Your task to perform on an android device: turn on location history Image 0: 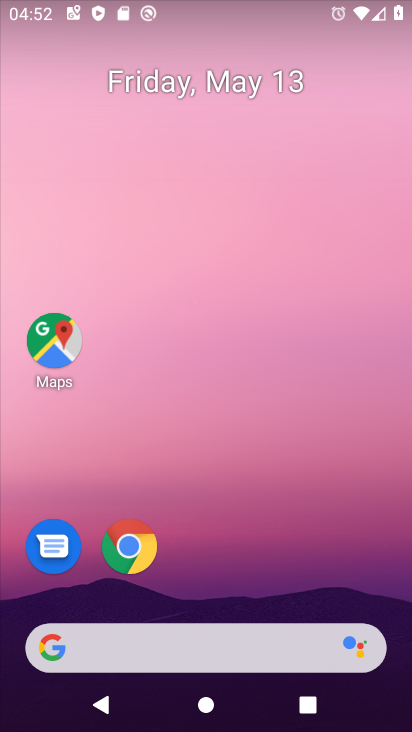
Step 0: drag from (193, 573) to (291, 8)
Your task to perform on an android device: turn on location history Image 1: 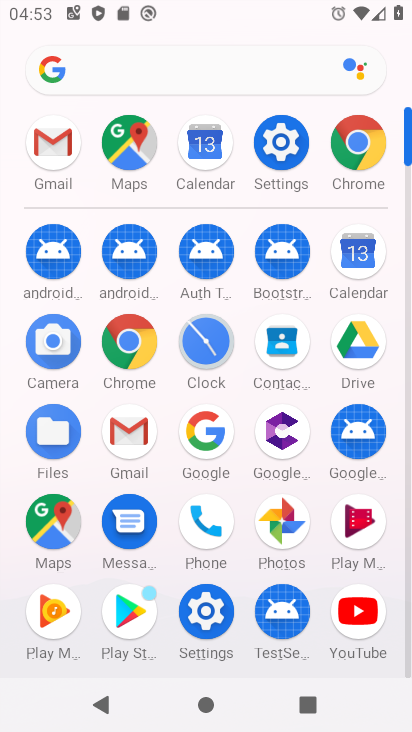
Step 1: click (213, 623)
Your task to perform on an android device: turn on location history Image 2: 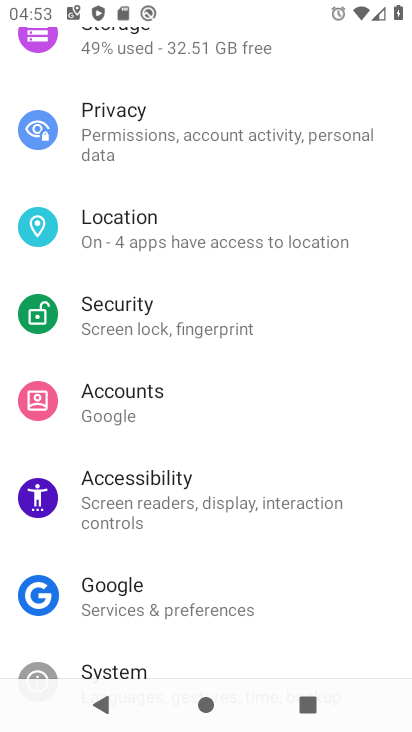
Step 2: click (191, 243)
Your task to perform on an android device: turn on location history Image 3: 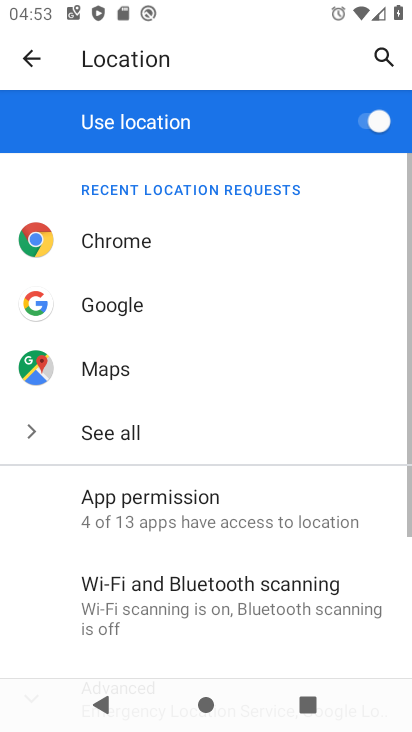
Step 3: drag from (182, 572) to (201, 255)
Your task to perform on an android device: turn on location history Image 4: 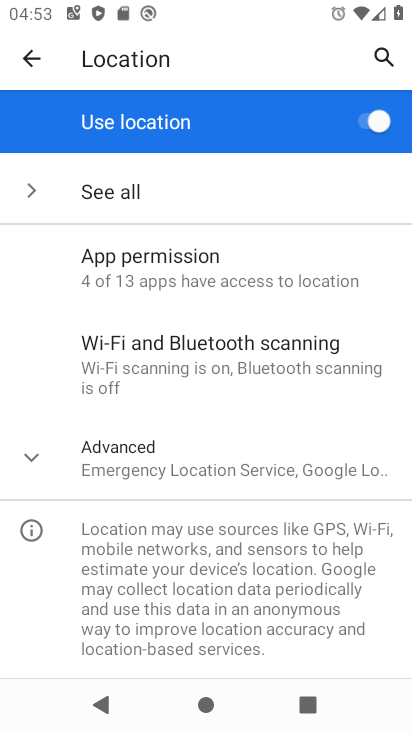
Step 4: click (162, 461)
Your task to perform on an android device: turn on location history Image 5: 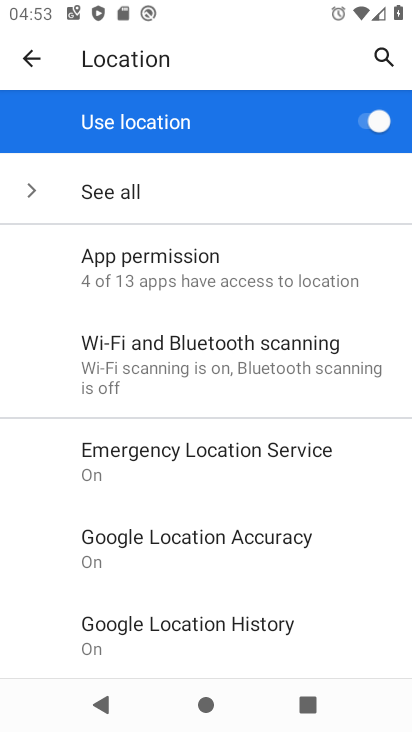
Step 5: click (233, 628)
Your task to perform on an android device: turn on location history Image 6: 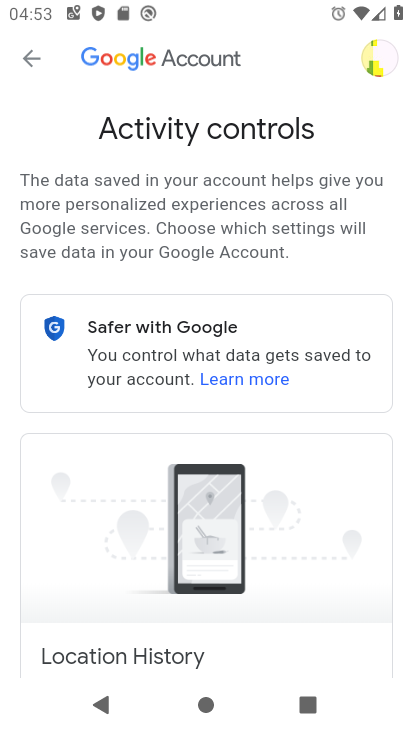
Step 6: drag from (187, 504) to (247, 166)
Your task to perform on an android device: turn on location history Image 7: 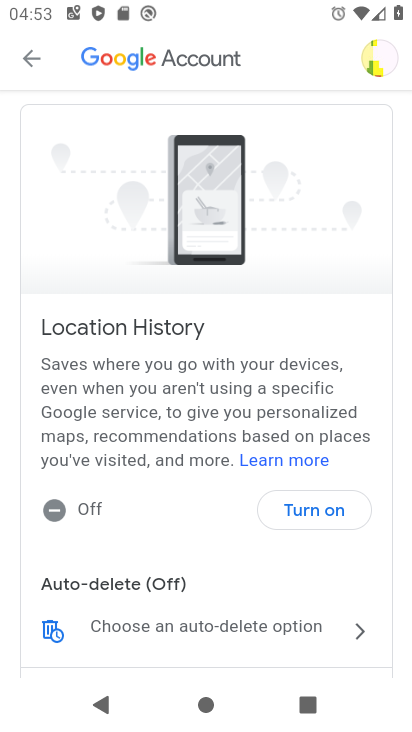
Step 7: click (297, 515)
Your task to perform on an android device: turn on location history Image 8: 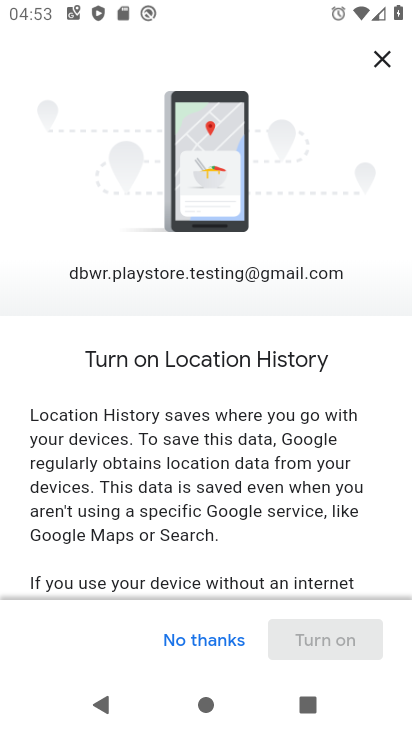
Step 8: drag from (233, 546) to (289, 7)
Your task to perform on an android device: turn on location history Image 9: 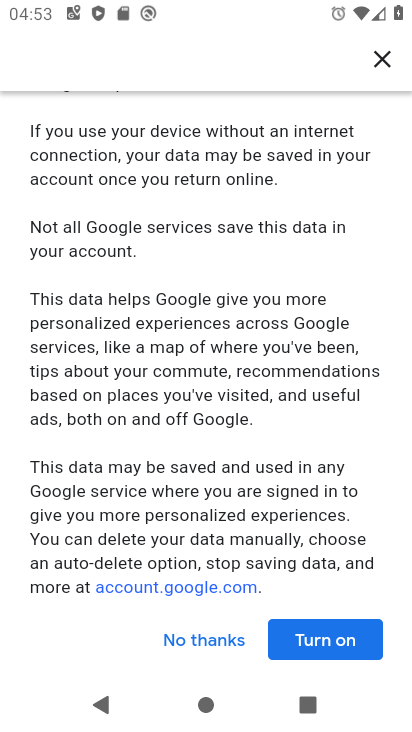
Step 9: drag from (197, 464) to (251, 132)
Your task to perform on an android device: turn on location history Image 10: 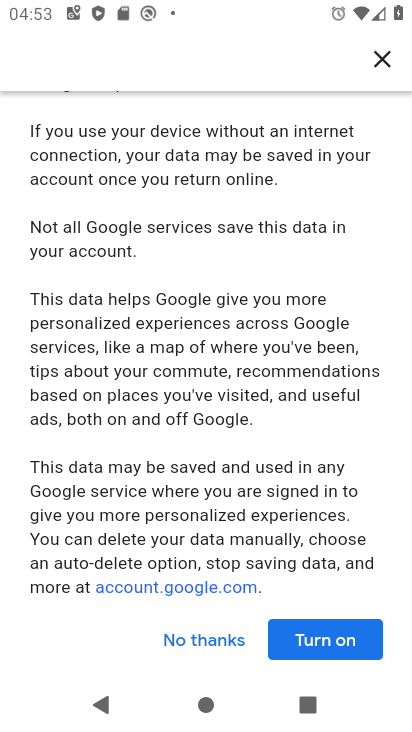
Step 10: click (330, 637)
Your task to perform on an android device: turn on location history Image 11: 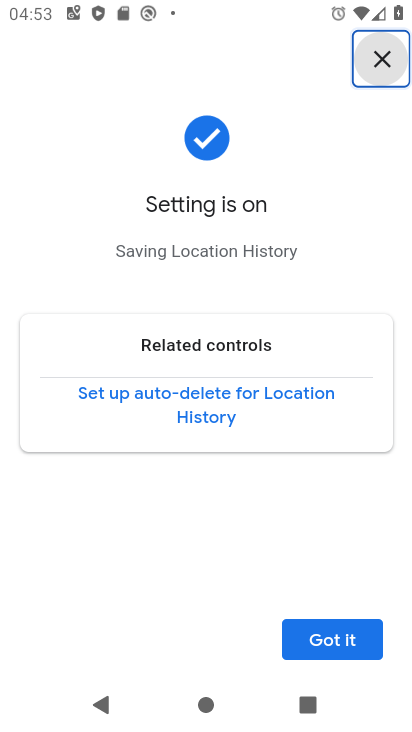
Step 11: click (331, 642)
Your task to perform on an android device: turn on location history Image 12: 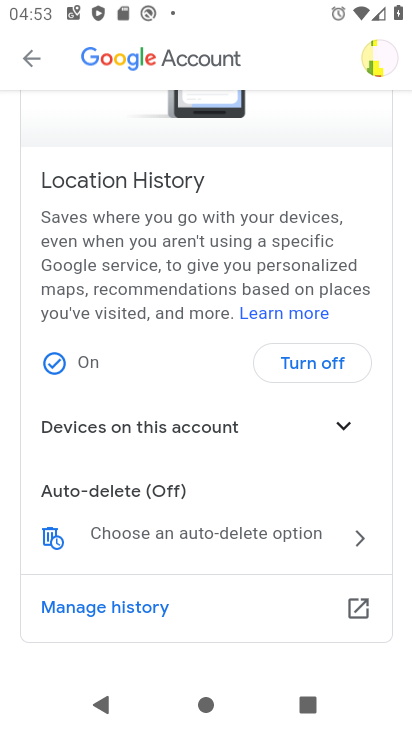
Step 12: task complete